Your task to perform on an android device: Open internet settings Image 0: 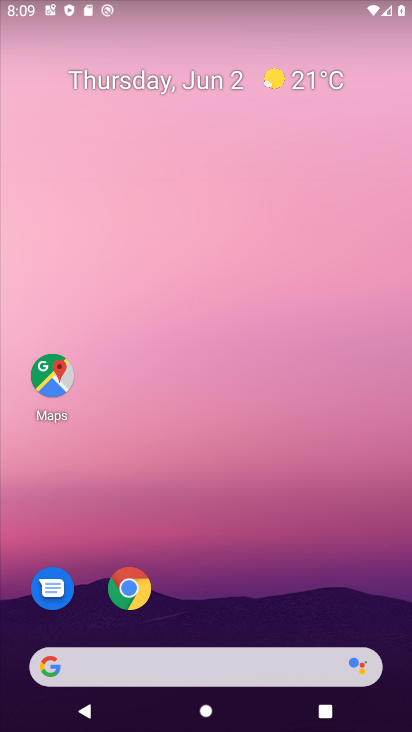
Step 0: drag from (198, 668) to (209, 224)
Your task to perform on an android device: Open internet settings Image 1: 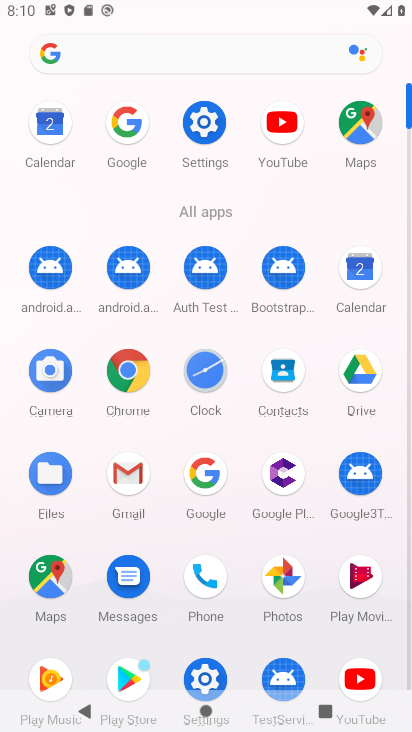
Step 1: click (208, 140)
Your task to perform on an android device: Open internet settings Image 2: 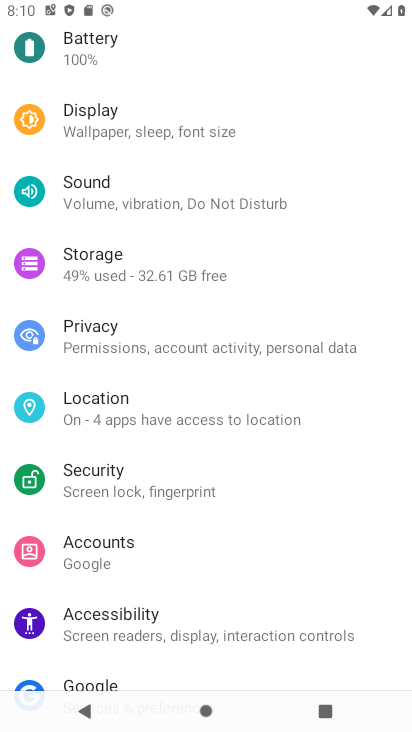
Step 2: drag from (150, 115) to (182, 607)
Your task to perform on an android device: Open internet settings Image 3: 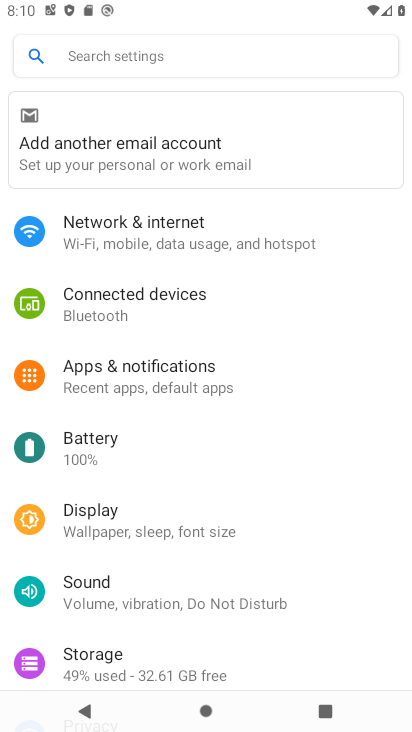
Step 3: click (146, 232)
Your task to perform on an android device: Open internet settings Image 4: 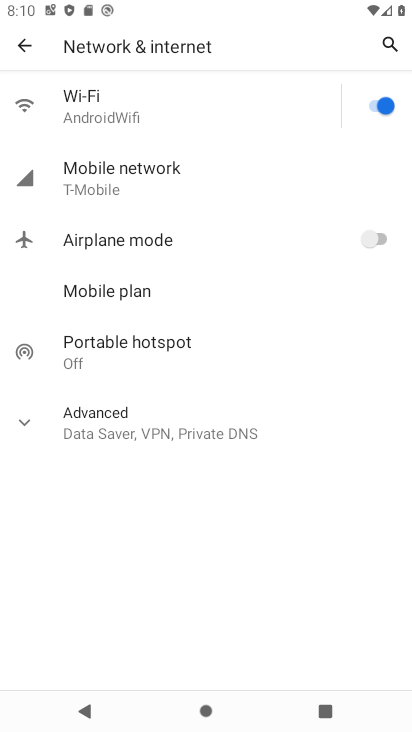
Step 4: task complete